Your task to perform on an android device: Open Chrome and go to settings Image 0: 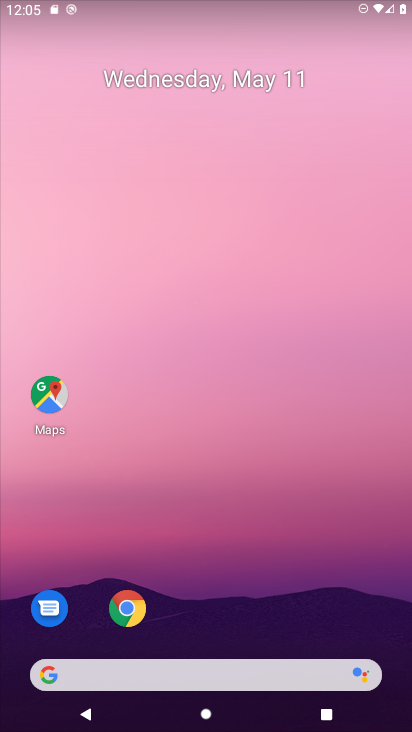
Step 0: click (130, 607)
Your task to perform on an android device: Open Chrome and go to settings Image 1: 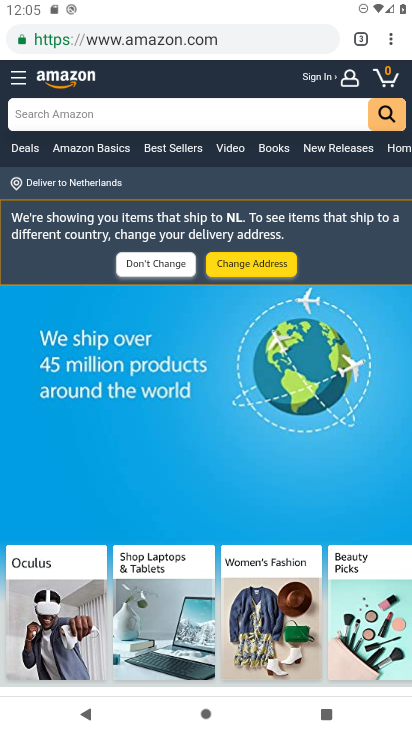
Step 1: click (390, 37)
Your task to perform on an android device: Open Chrome and go to settings Image 2: 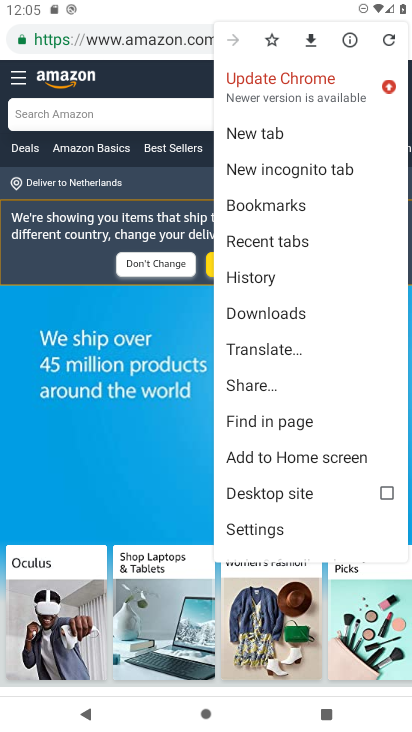
Step 2: click (279, 525)
Your task to perform on an android device: Open Chrome and go to settings Image 3: 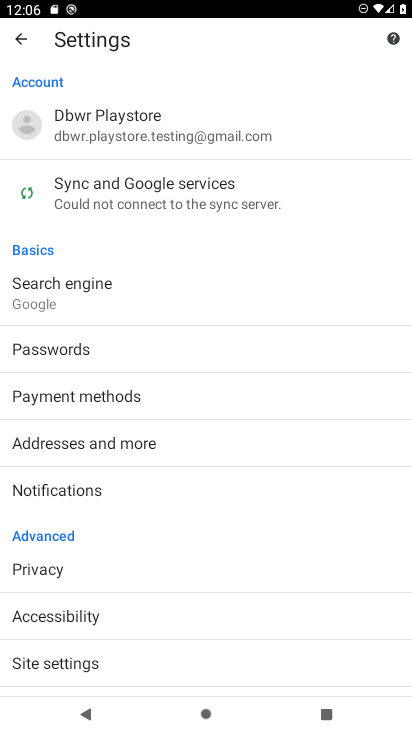
Step 3: task complete